Your task to perform on an android device: see sites visited before in the chrome app Image 0: 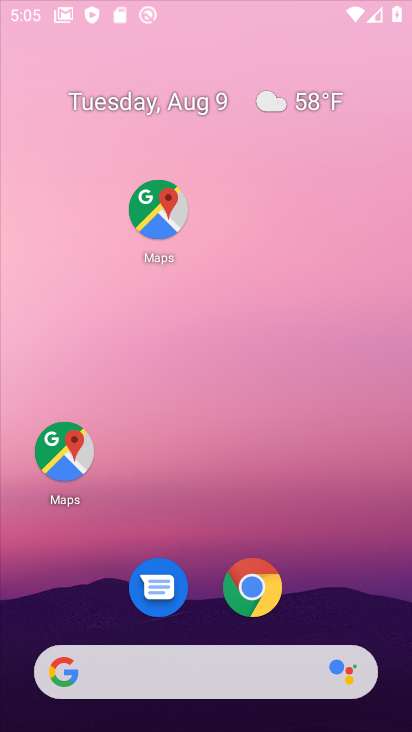
Step 0: drag from (205, 679) to (214, 222)
Your task to perform on an android device: see sites visited before in the chrome app Image 1: 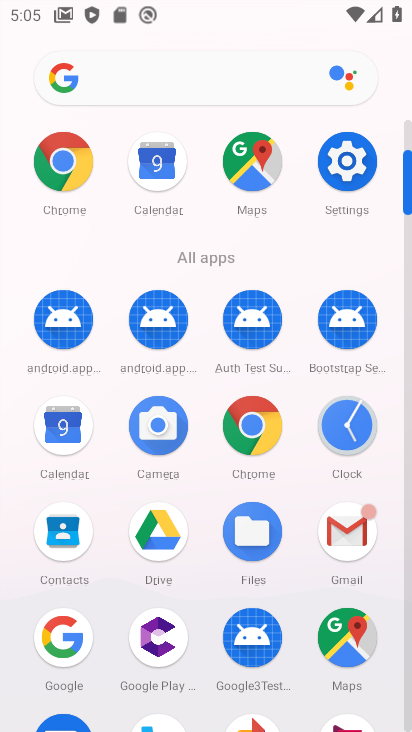
Step 1: click (249, 417)
Your task to perform on an android device: see sites visited before in the chrome app Image 2: 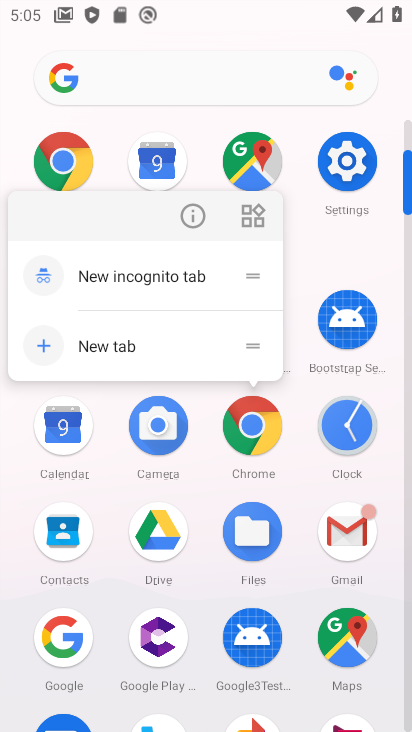
Step 2: click (249, 418)
Your task to perform on an android device: see sites visited before in the chrome app Image 3: 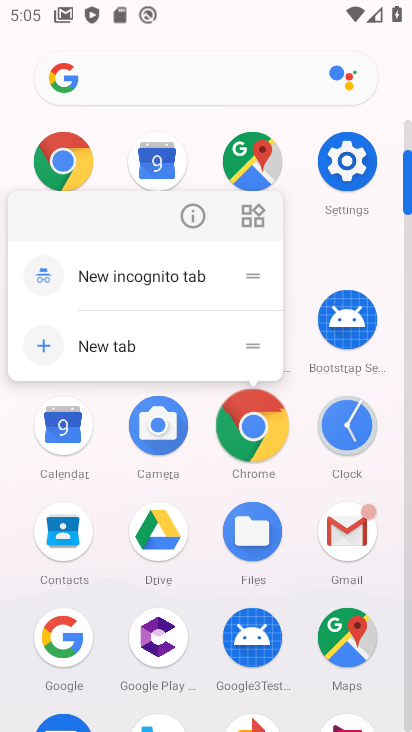
Step 3: click (249, 419)
Your task to perform on an android device: see sites visited before in the chrome app Image 4: 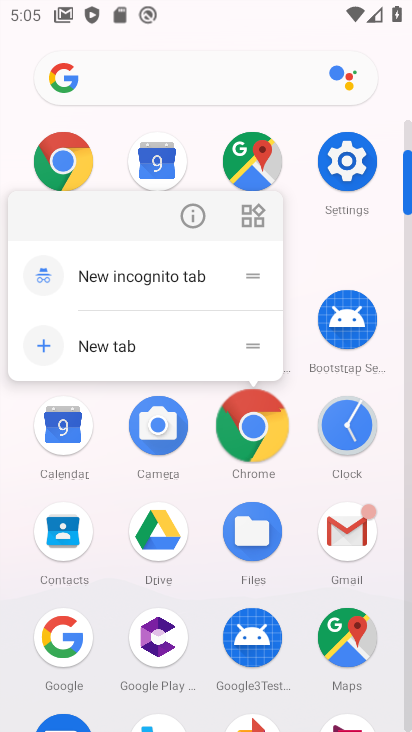
Step 4: click (255, 427)
Your task to perform on an android device: see sites visited before in the chrome app Image 5: 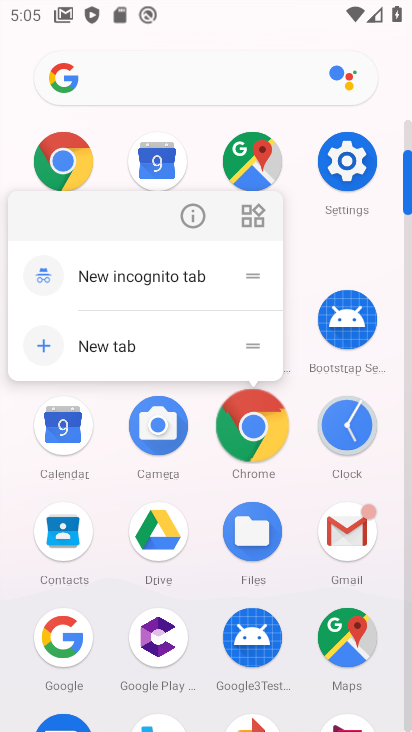
Step 5: click (255, 428)
Your task to perform on an android device: see sites visited before in the chrome app Image 6: 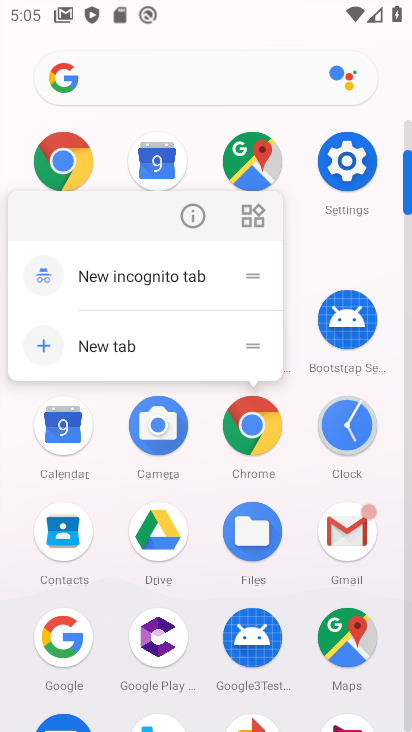
Step 6: click (256, 423)
Your task to perform on an android device: see sites visited before in the chrome app Image 7: 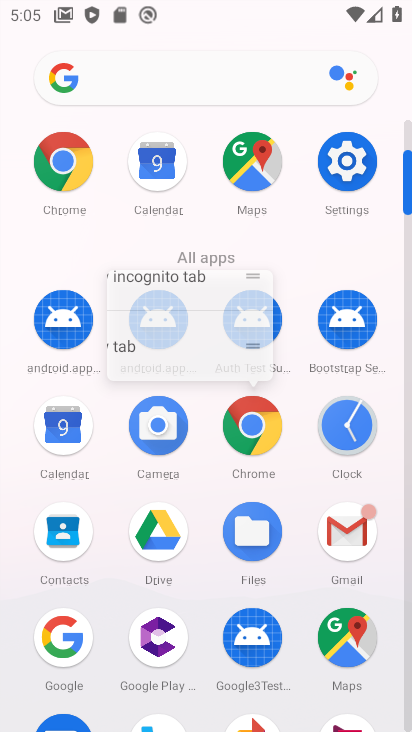
Step 7: click (256, 423)
Your task to perform on an android device: see sites visited before in the chrome app Image 8: 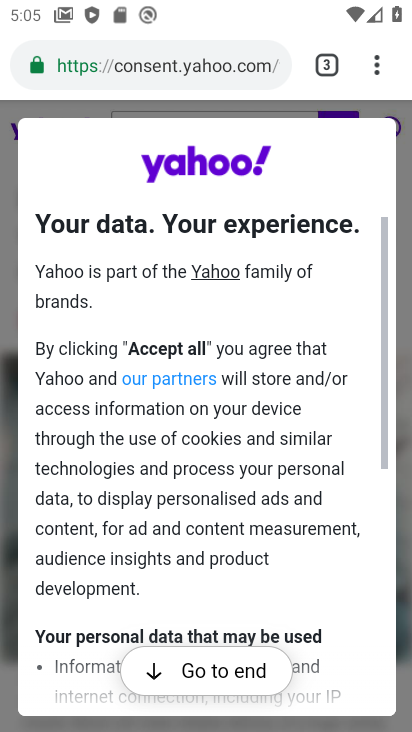
Step 8: drag from (378, 46) to (126, 304)
Your task to perform on an android device: see sites visited before in the chrome app Image 9: 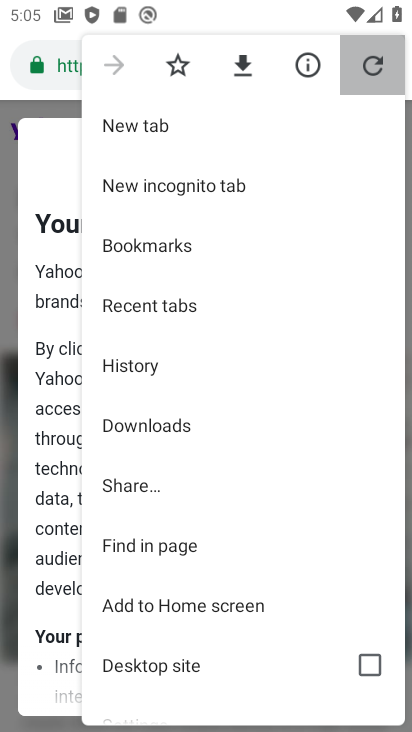
Step 9: click (129, 309)
Your task to perform on an android device: see sites visited before in the chrome app Image 10: 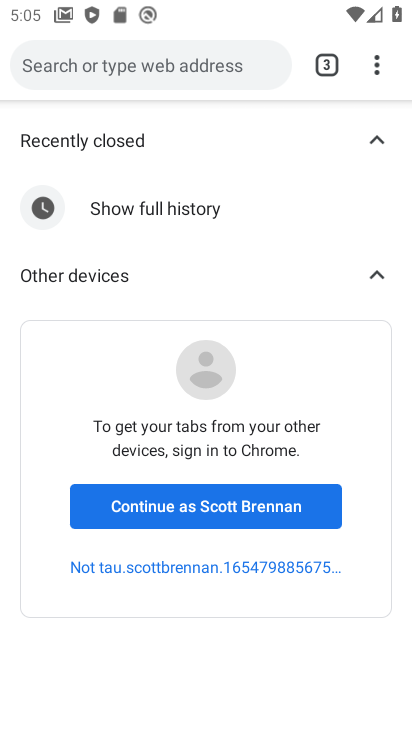
Step 10: task complete